Your task to perform on an android device: turn notification dots off Image 0: 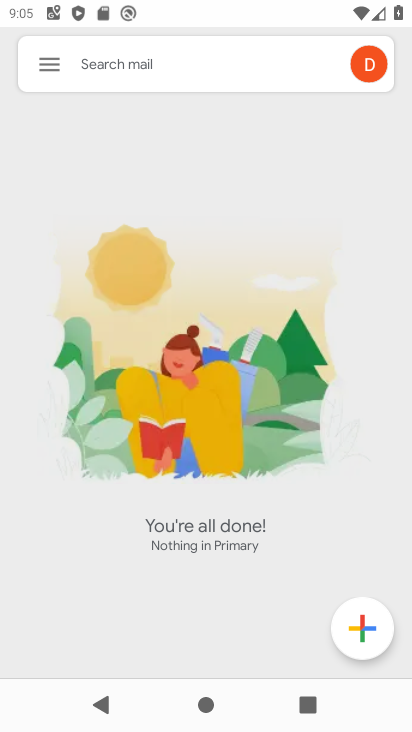
Step 0: press home button
Your task to perform on an android device: turn notification dots off Image 1: 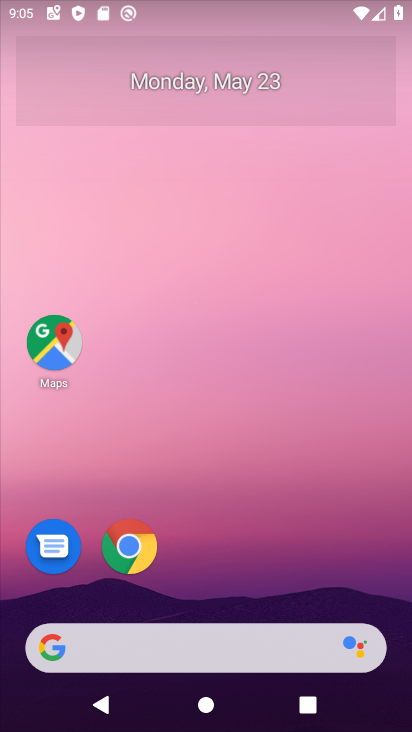
Step 1: drag from (281, 508) to (263, 169)
Your task to perform on an android device: turn notification dots off Image 2: 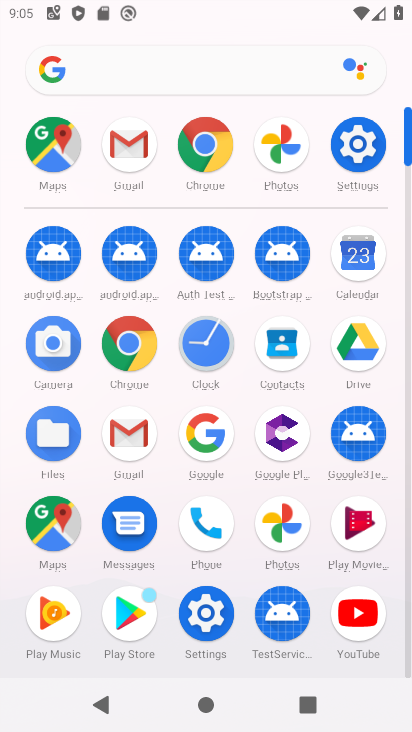
Step 2: click (344, 151)
Your task to perform on an android device: turn notification dots off Image 3: 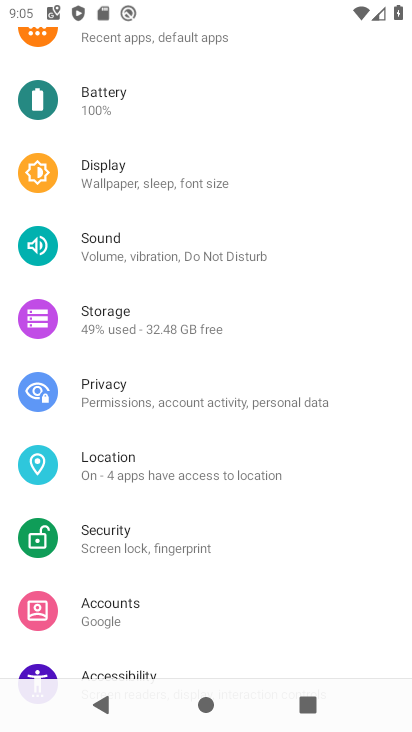
Step 3: drag from (329, 138) to (240, 340)
Your task to perform on an android device: turn notification dots off Image 4: 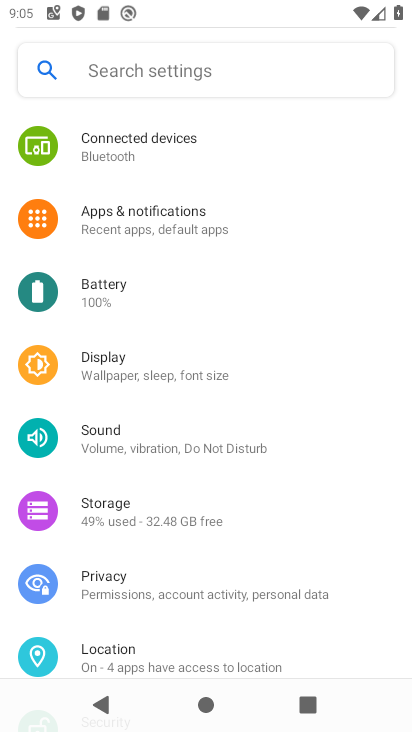
Step 4: click (200, 240)
Your task to perform on an android device: turn notification dots off Image 5: 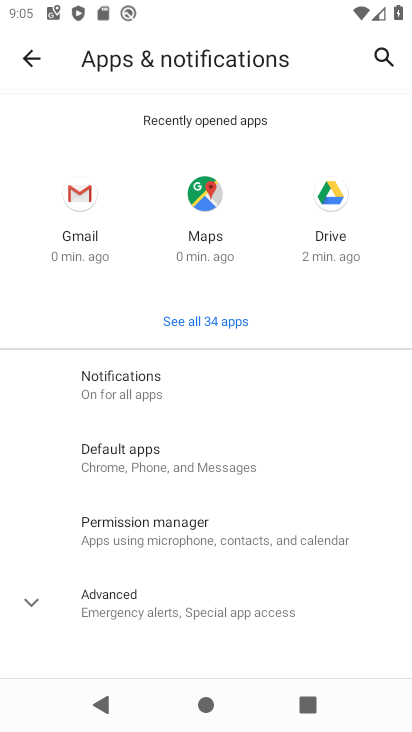
Step 5: click (177, 372)
Your task to perform on an android device: turn notification dots off Image 6: 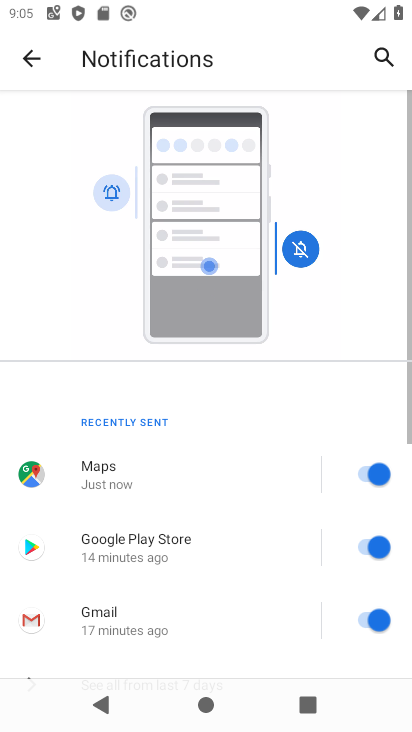
Step 6: drag from (227, 429) to (269, 9)
Your task to perform on an android device: turn notification dots off Image 7: 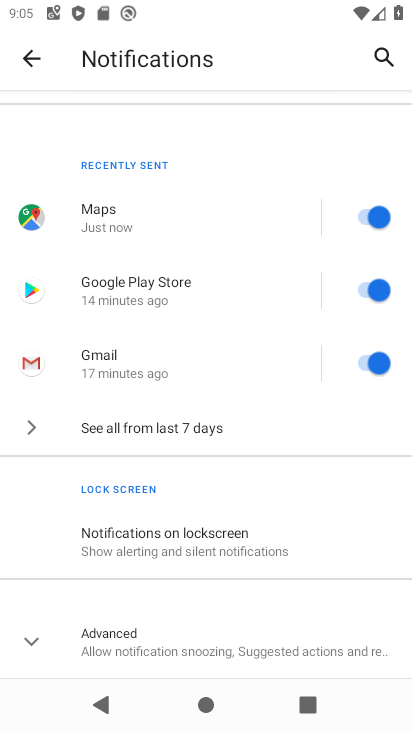
Step 7: click (202, 626)
Your task to perform on an android device: turn notification dots off Image 8: 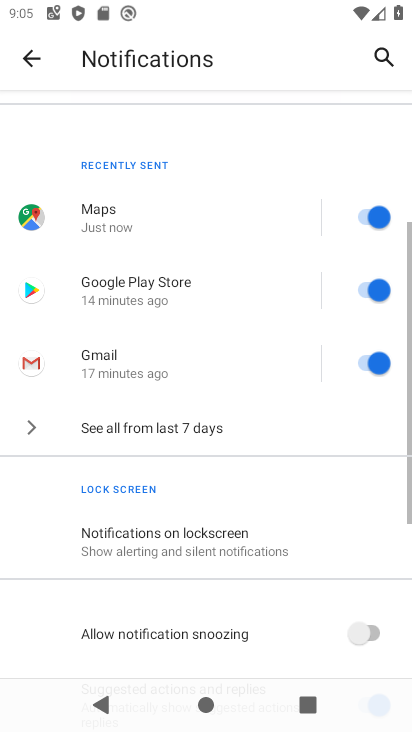
Step 8: drag from (210, 602) to (318, 216)
Your task to perform on an android device: turn notification dots off Image 9: 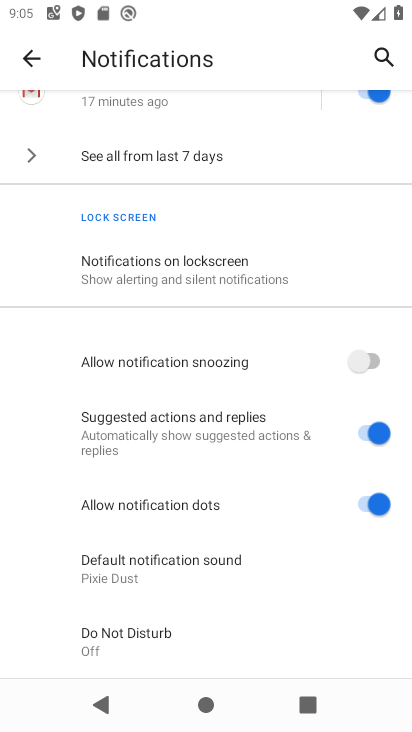
Step 9: click (366, 512)
Your task to perform on an android device: turn notification dots off Image 10: 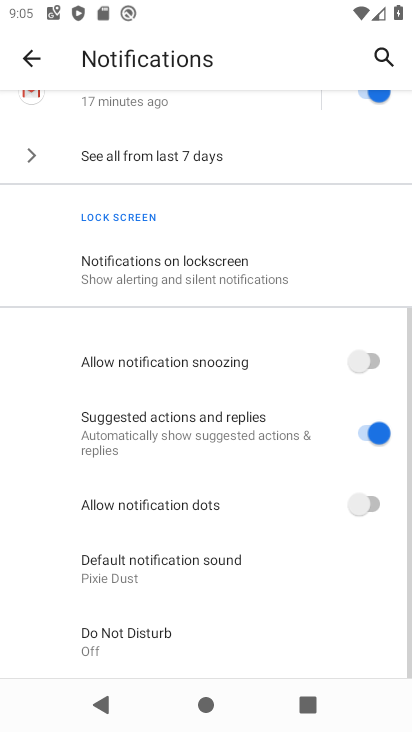
Step 10: task complete